Your task to perform on an android device: Go to settings Image 0: 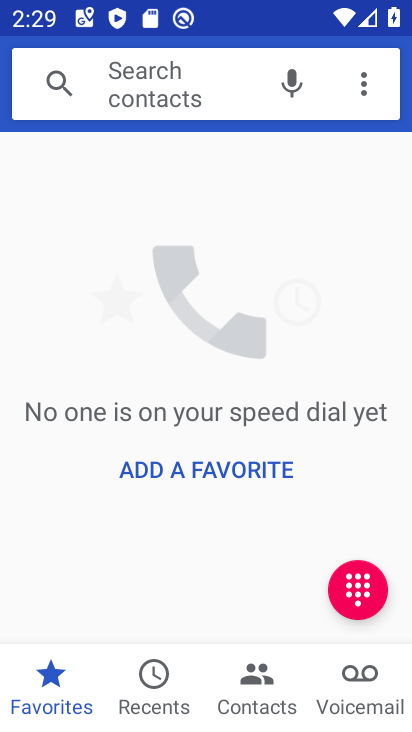
Step 0: press home button
Your task to perform on an android device: Go to settings Image 1: 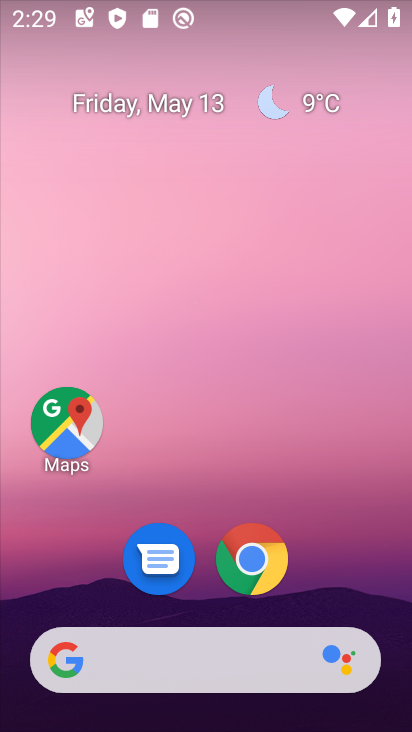
Step 1: drag from (328, 559) to (220, 6)
Your task to perform on an android device: Go to settings Image 2: 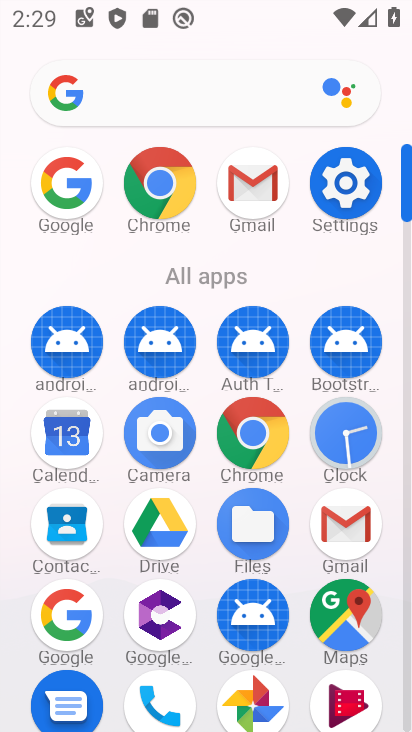
Step 2: click (340, 194)
Your task to perform on an android device: Go to settings Image 3: 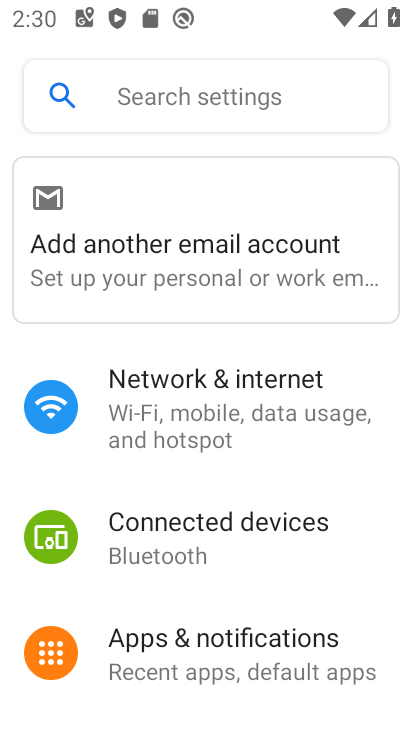
Step 3: task complete